Your task to perform on an android device: Open calendar and show me the second week of next month Image 0: 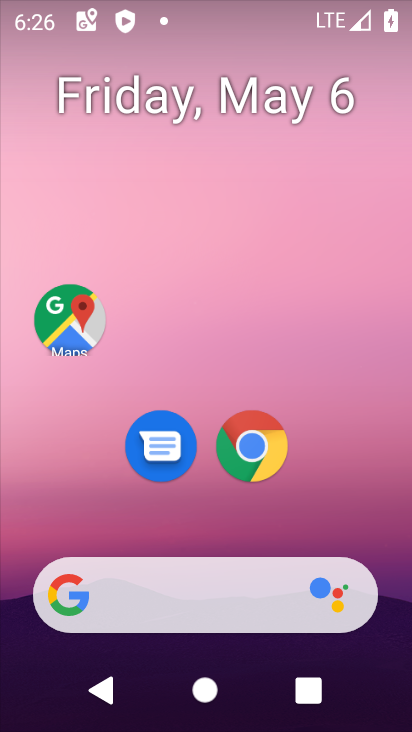
Step 0: drag from (301, 518) to (283, 199)
Your task to perform on an android device: Open calendar and show me the second week of next month Image 1: 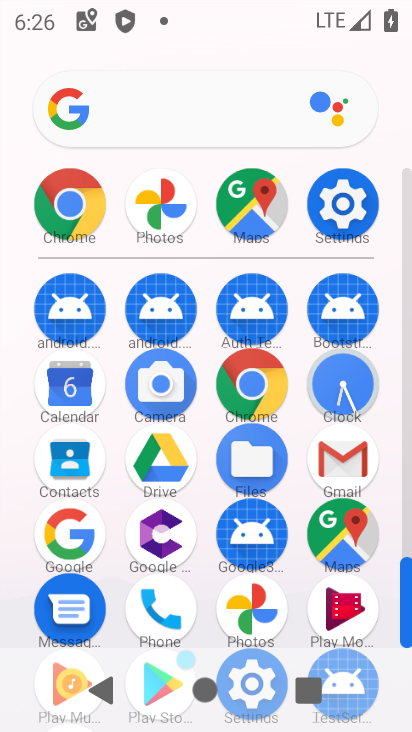
Step 1: click (88, 408)
Your task to perform on an android device: Open calendar and show me the second week of next month Image 2: 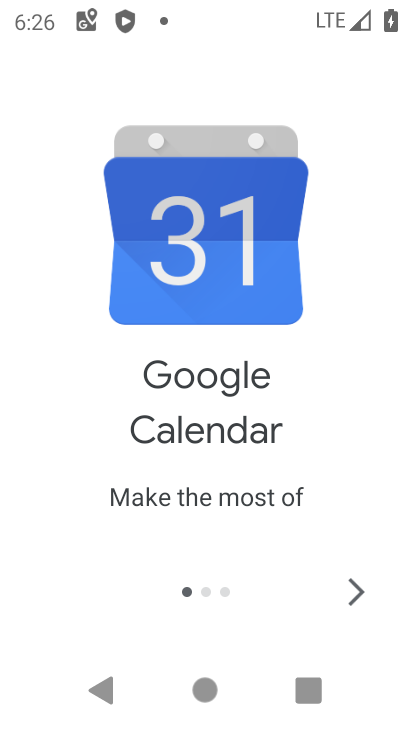
Step 2: click (342, 586)
Your task to perform on an android device: Open calendar and show me the second week of next month Image 3: 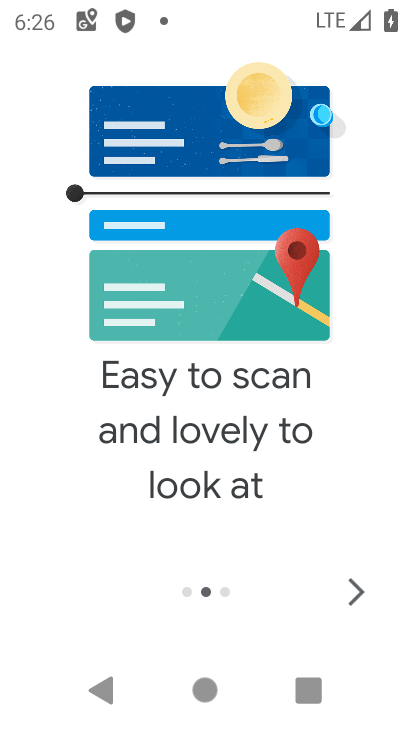
Step 3: click (357, 590)
Your task to perform on an android device: Open calendar and show me the second week of next month Image 4: 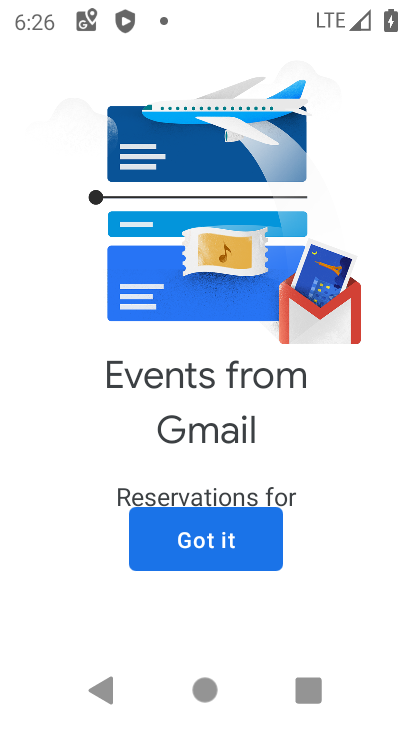
Step 4: click (219, 546)
Your task to perform on an android device: Open calendar and show me the second week of next month Image 5: 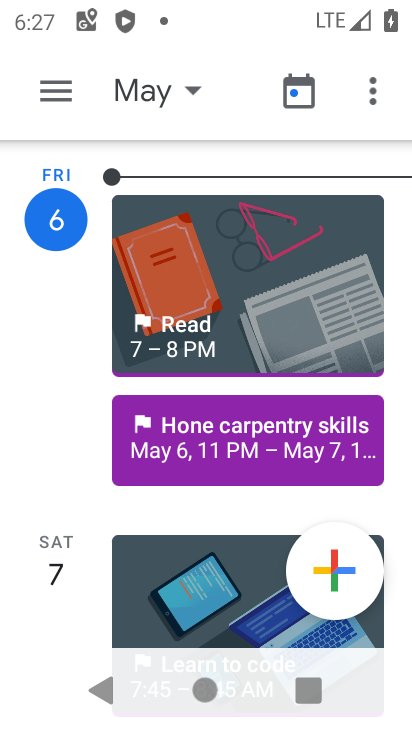
Step 5: click (158, 102)
Your task to perform on an android device: Open calendar and show me the second week of next month Image 6: 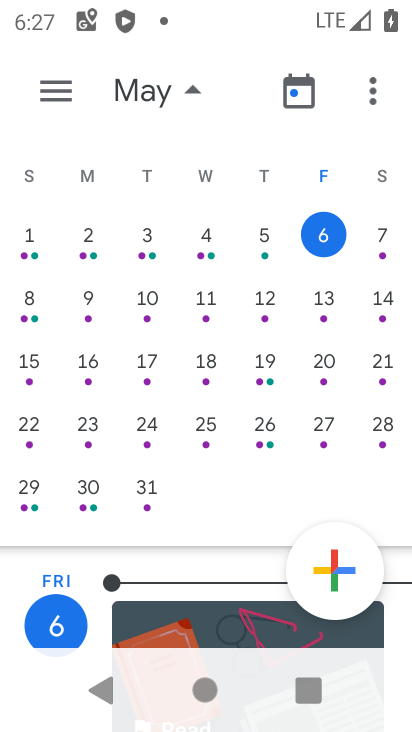
Step 6: click (66, 97)
Your task to perform on an android device: Open calendar and show me the second week of next month Image 7: 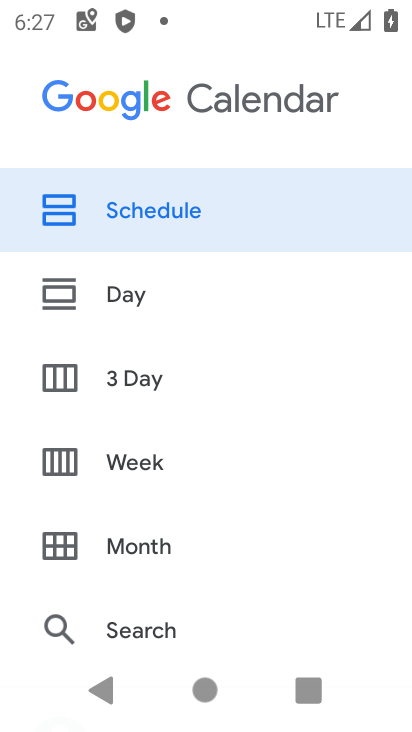
Step 7: click (127, 462)
Your task to perform on an android device: Open calendar and show me the second week of next month Image 8: 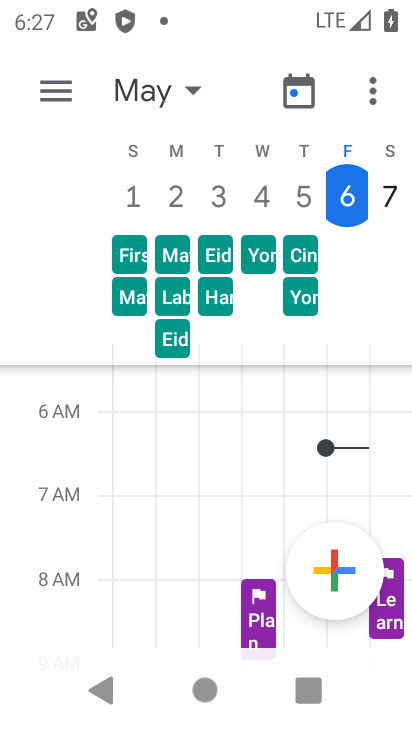
Step 8: click (148, 89)
Your task to perform on an android device: Open calendar and show me the second week of next month Image 9: 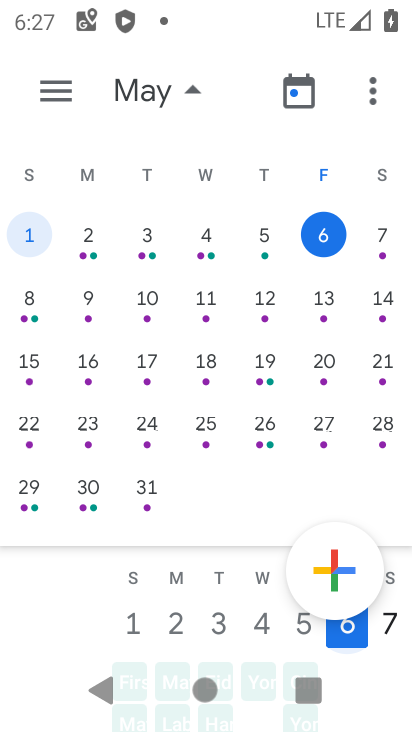
Step 9: drag from (359, 334) to (218, 410)
Your task to perform on an android device: Open calendar and show me the second week of next month Image 10: 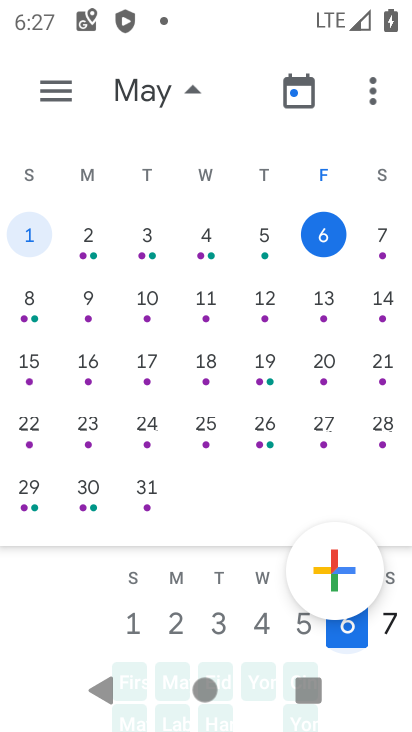
Step 10: drag from (329, 316) to (11, 360)
Your task to perform on an android device: Open calendar and show me the second week of next month Image 11: 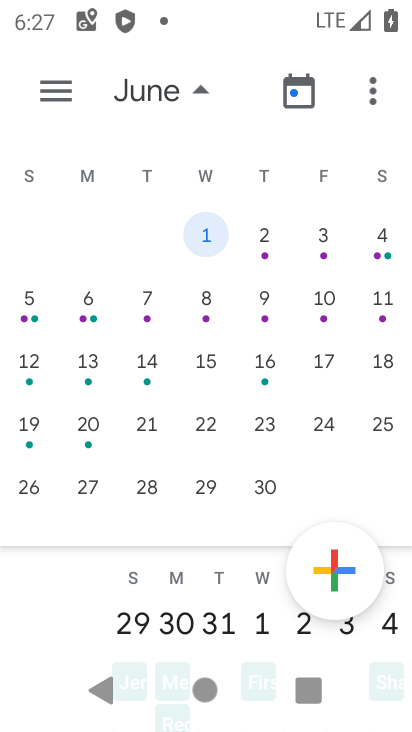
Step 11: click (30, 356)
Your task to perform on an android device: Open calendar and show me the second week of next month Image 12: 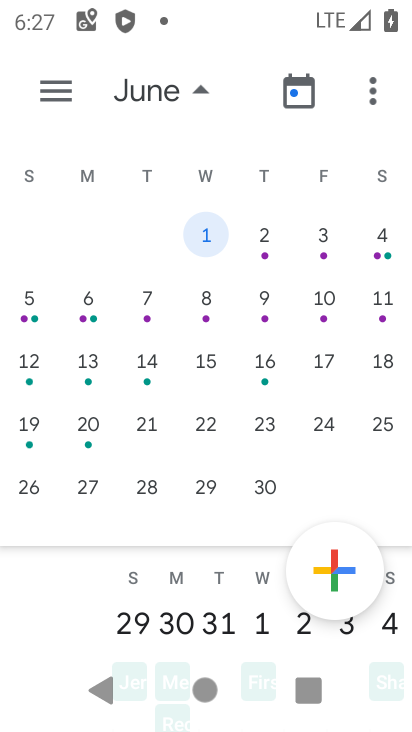
Step 12: click (30, 356)
Your task to perform on an android device: Open calendar and show me the second week of next month Image 13: 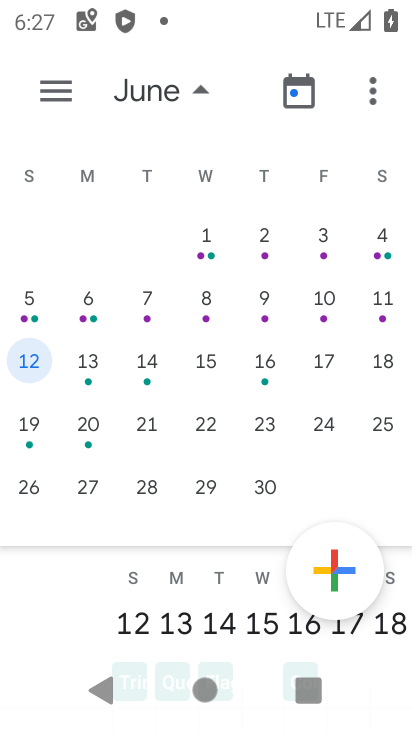
Step 13: task complete